Your task to perform on an android device: turn off picture-in-picture Image 0: 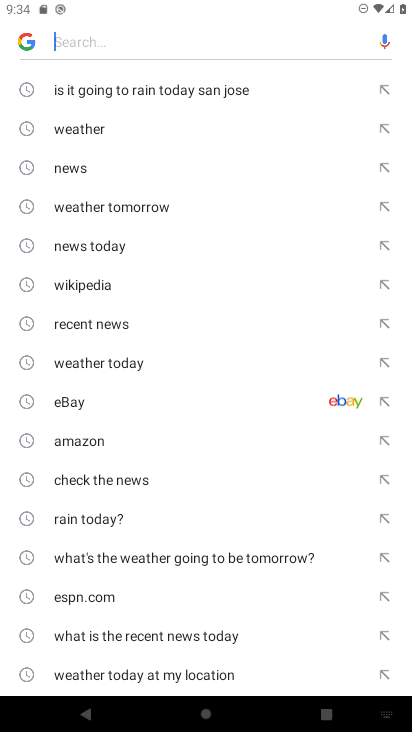
Step 0: drag from (169, 534) to (178, 236)
Your task to perform on an android device: turn off picture-in-picture Image 1: 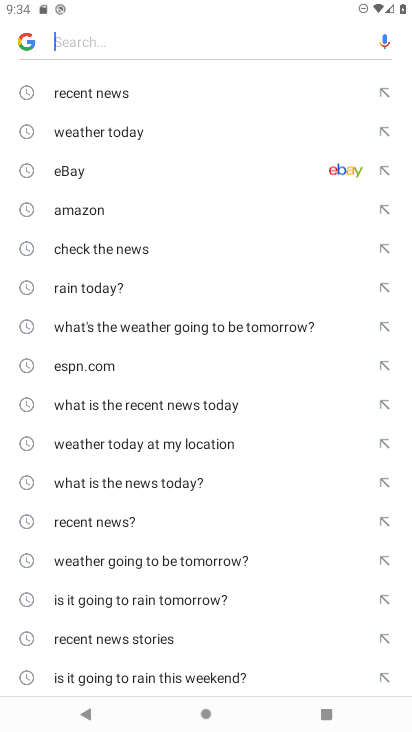
Step 1: drag from (180, 148) to (234, 723)
Your task to perform on an android device: turn off picture-in-picture Image 2: 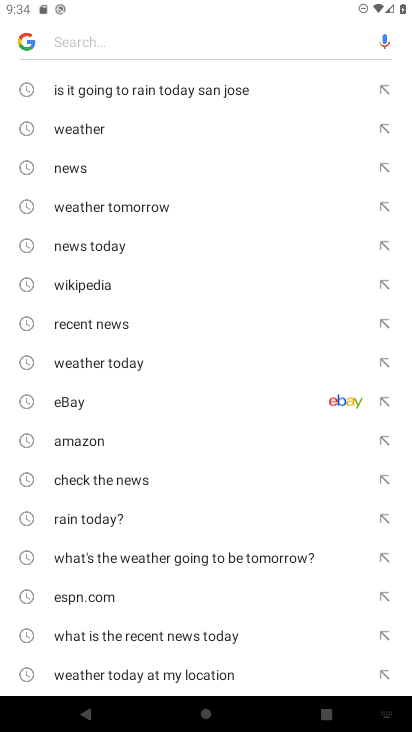
Step 2: press home button
Your task to perform on an android device: turn off picture-in-picture Image 3: 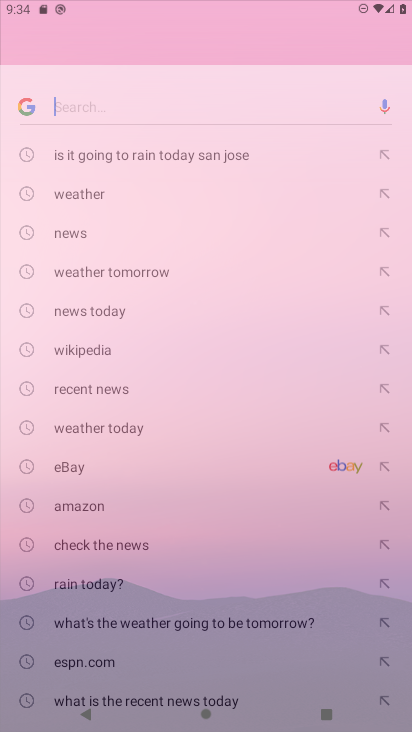
Step 3: drag from (170, 529) to (177, 41)
Your task to perform on an android device: turn off picture-in-picture Image 4: 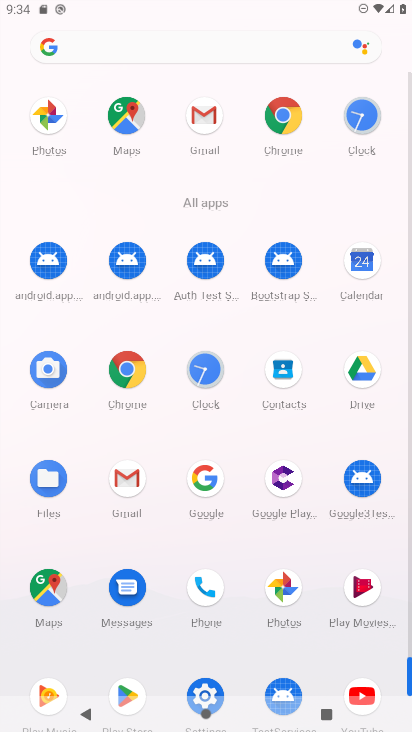
Step 4: click (200, 683)
Your task to perform on an android device: turn off picture-in-picture Image 5: 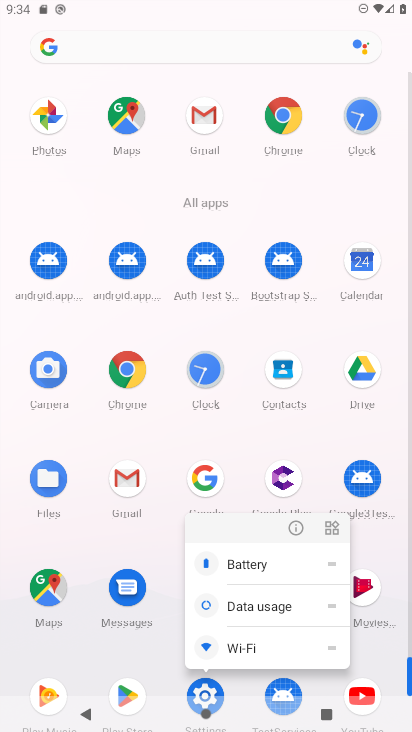
Step 5: click (289, 528)
Your task to perform on an android device: turn off picture-in-picture Image 6: 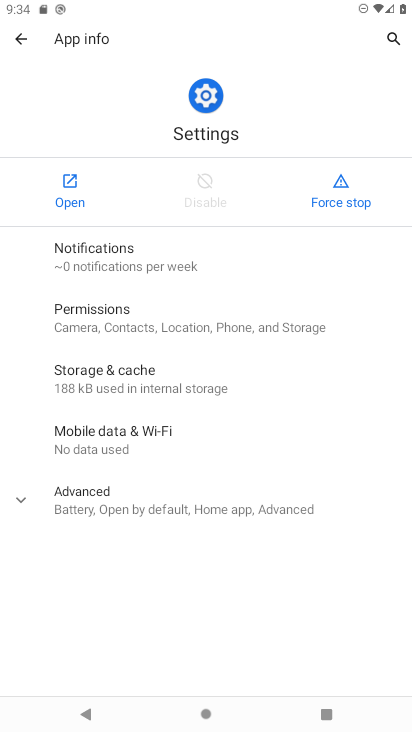
Step 6: click (73, 194)
Your task to perform on an android device: turn off picture-in-picture Image 7: 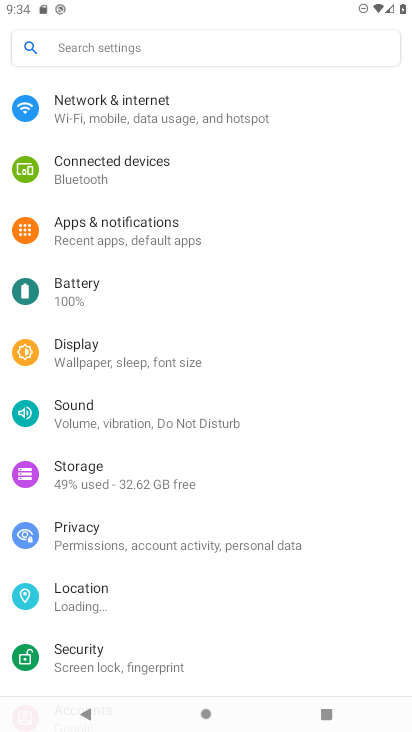
Step 7: drag from (187, 496) to (230, 119)
Your task to perform on an android device: turn off picture-in-picture Image 8: 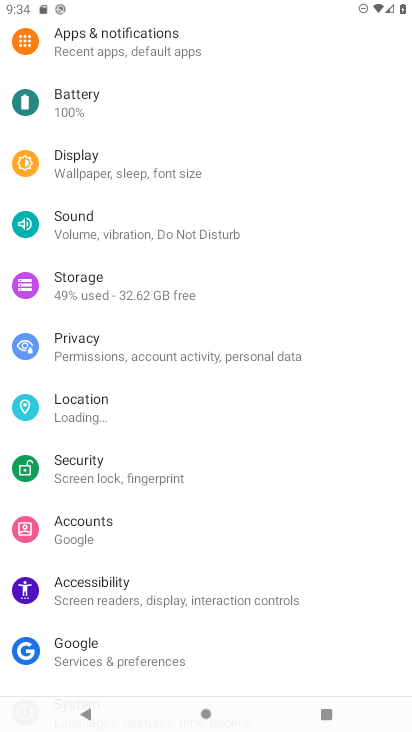
Step 8: click (177, 57)
Your task to perform on an android device: turn off picture-in-picture Image 9: 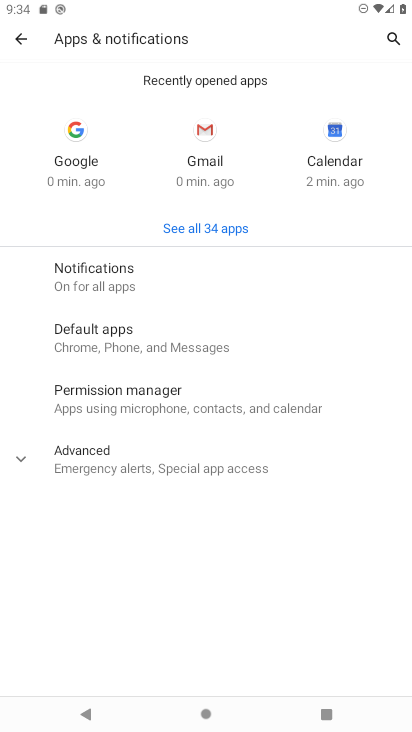
Step 9: click (124, 436)
Your task to perform on an android device: turn off picture-in-picture Image 10: 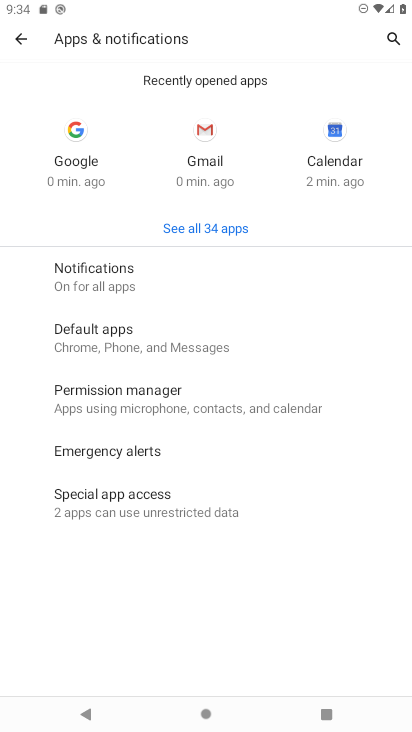
Step 10: click (93, 514)
Your task to perform on an android device: turn off picture-in-picture Image 11: 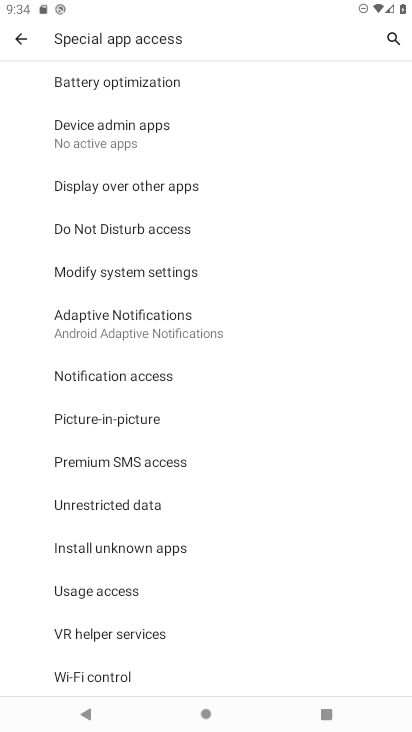
Step 11: click (97, 423)
Your task to perform on an android device: turn off picture-in-picture Image 12: 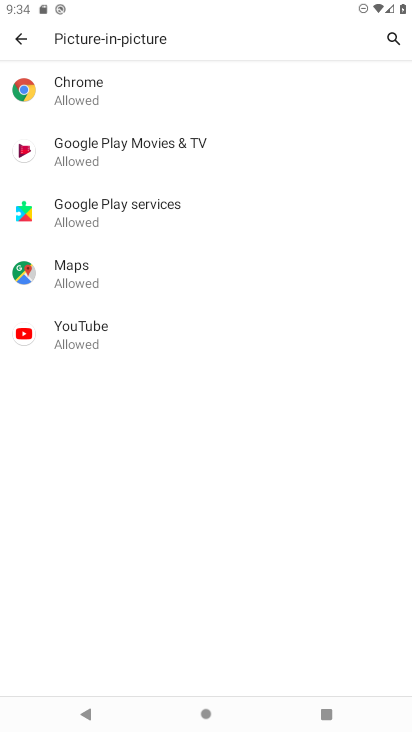
Step 12: click (109, 97)
Your task to perform on an android device: turn off picture-in-picture Image 13: 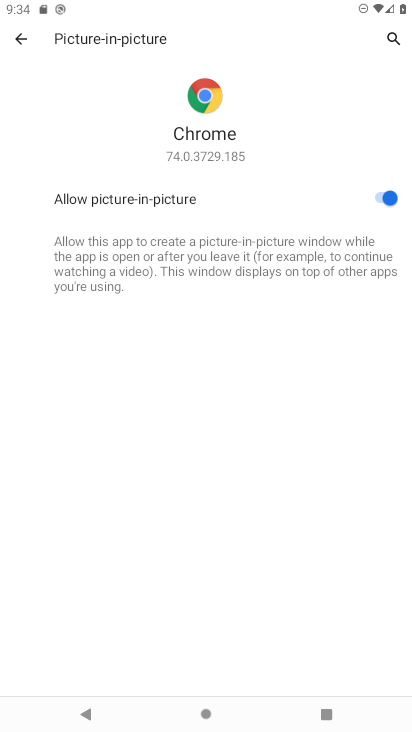
Step 13: click (381, 195)
Your task to perform on an android device: turn off picture-in-picture Image 14: 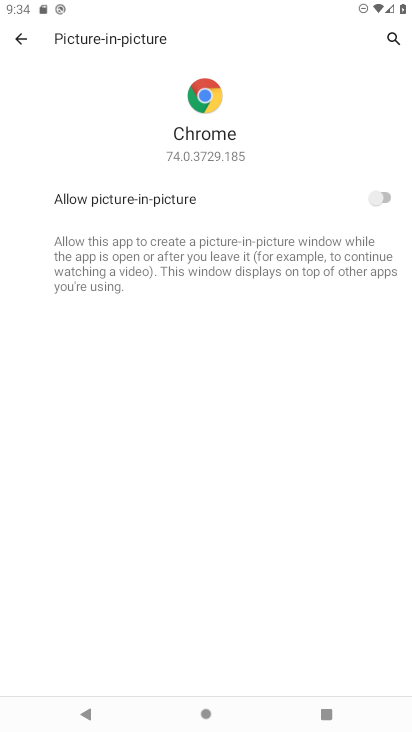
Step 14: task complete